Your task to perform on an android device: turn off sleep mode Image 0: 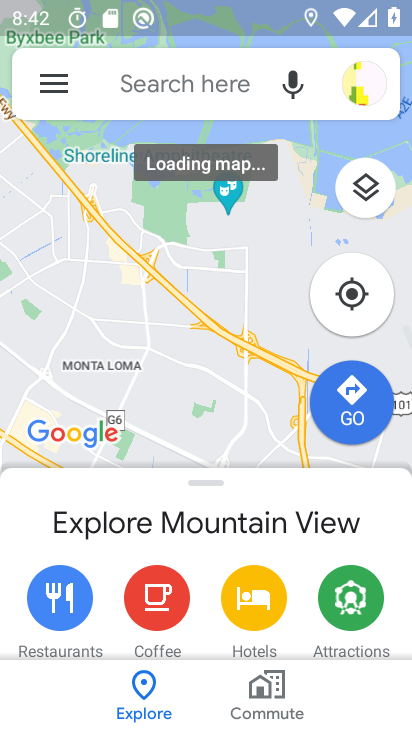
Step 0: press back button
Your task to perform on an android device: turn off sleep mode Image 1: 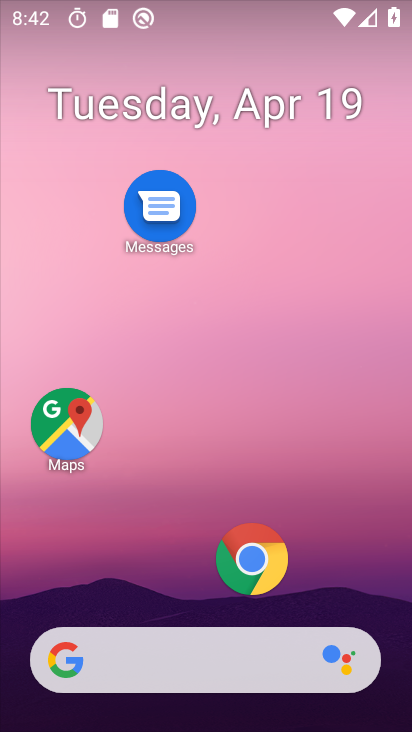
Step 1: drag from (192, 630) to (196, 106)
Your task to perform on an android device: turn off sleep mode Image 2: 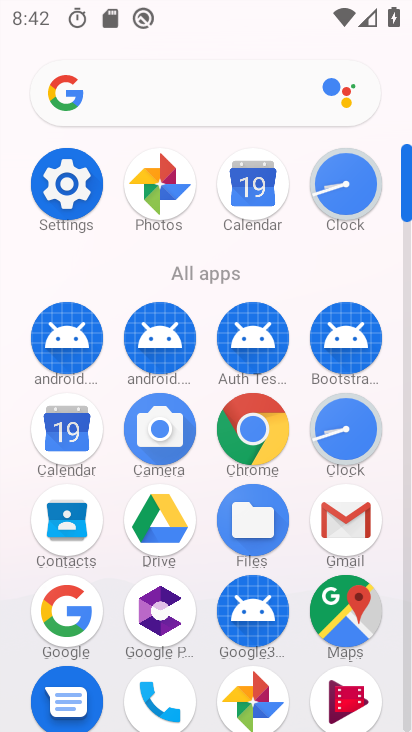
Step 2: click (97, 187)
Your task to perform on an android device: turn off sleep mode Image 3: 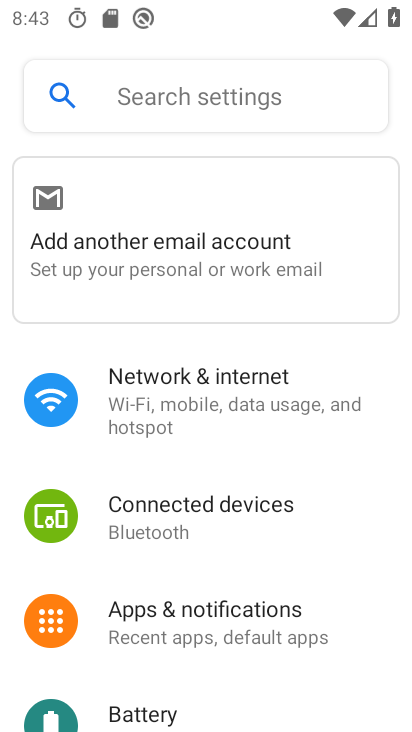
Step 3: drag from (215, 650) to (175, 181)
Your task to perform on an android device: turn off sleep mode Image 4: 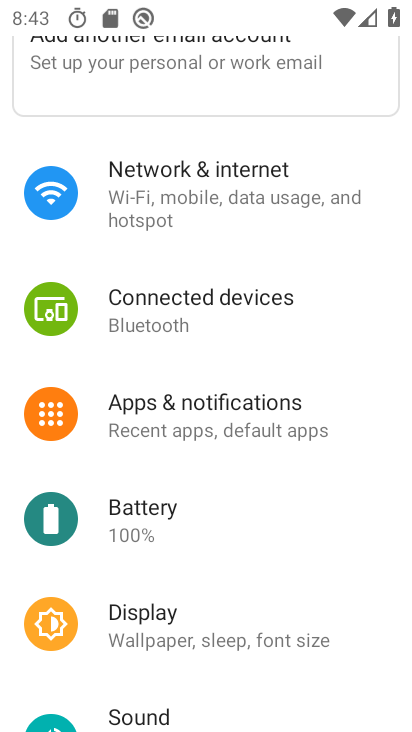
Step 4: drag from (153, 617) to (133, 100)
Your task to perform on an android device: turn off sleep mode Image 5: 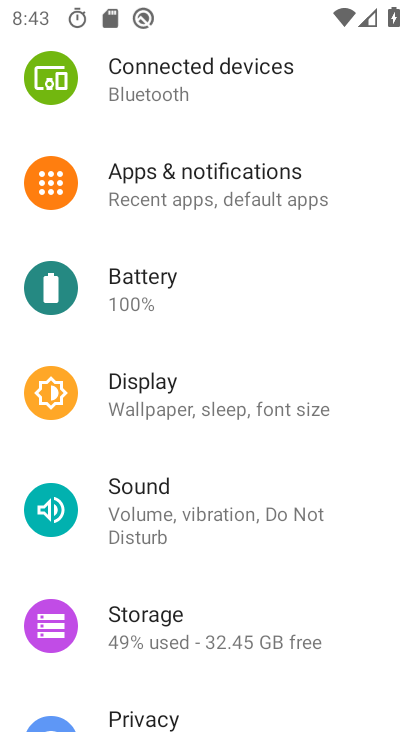
Step 5: click (126, 395)
Your task to perform on an android device: turn off sleep mode Image 6: 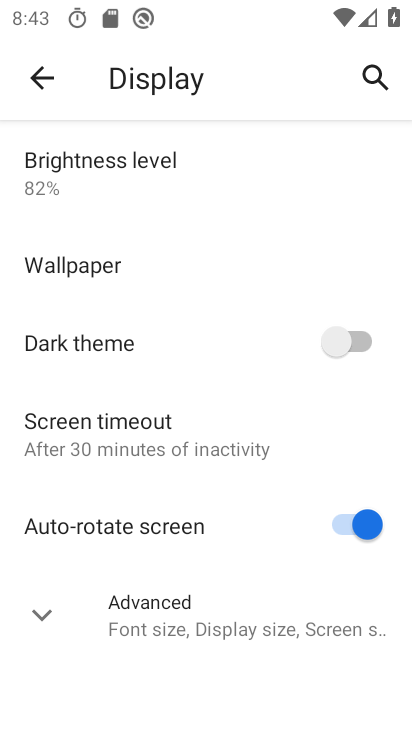
Step 6: drag from (211, 651) to (187, 214)
Your task to perform on an android device: turn off sleep mode Image 7: 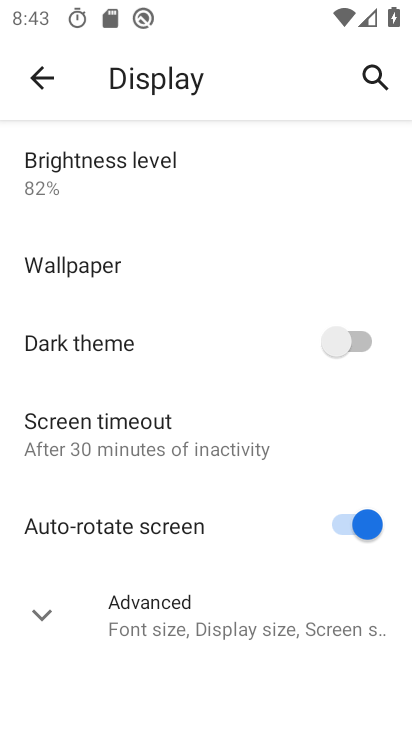
Step 7: click (132, 592)
Your task to perform on an android device: turn off sleep mode Image 8: 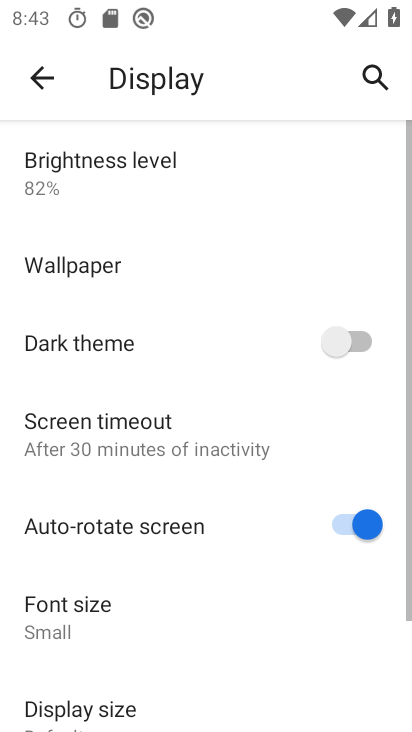
Step 8: task complete